Your task to perform on an android device: install app "Move to iOS" Image 0: 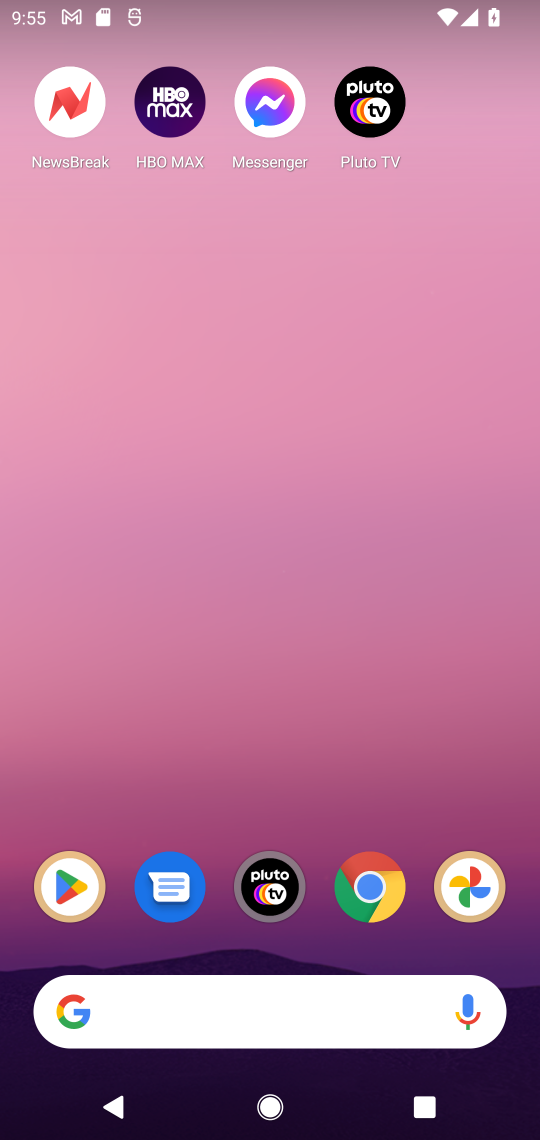
Step 0: click (76, 884)
Your task to perform on an android device: install app "Move to iOS" Image 1: 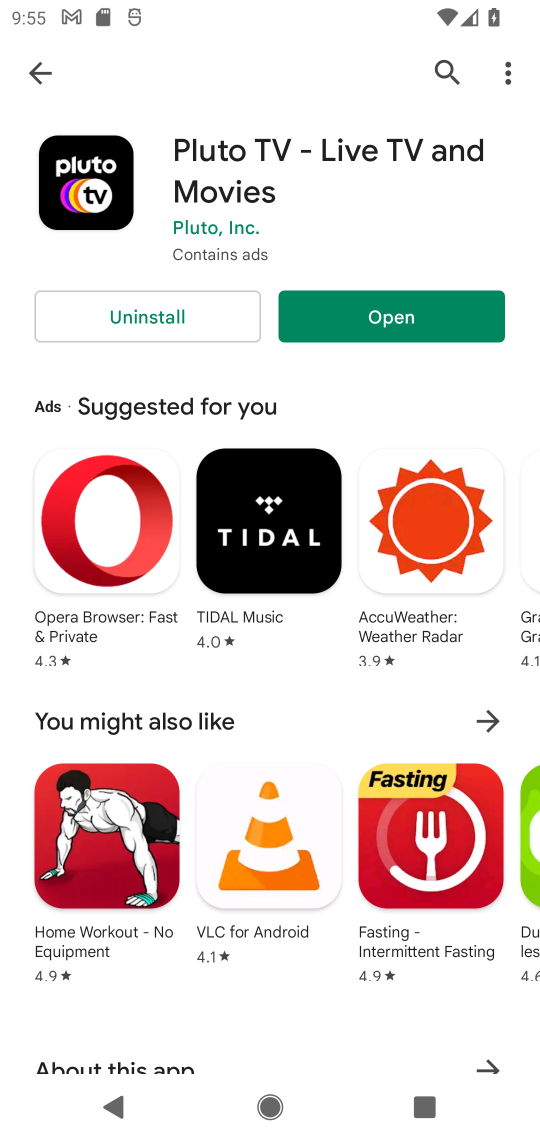
Step 1: click (439, 69)
Your task to perform on an android device: install app "Move to iOS" Image 2: 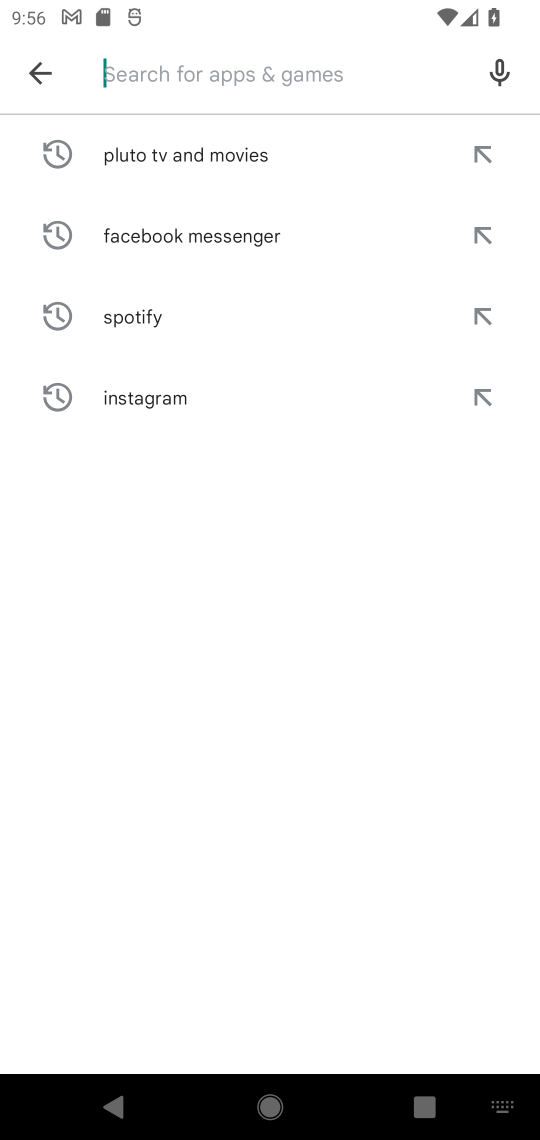
Step 2: type "Move to iOS"
Your task to perform on an android device: install app "Move to iOS" Image 3: 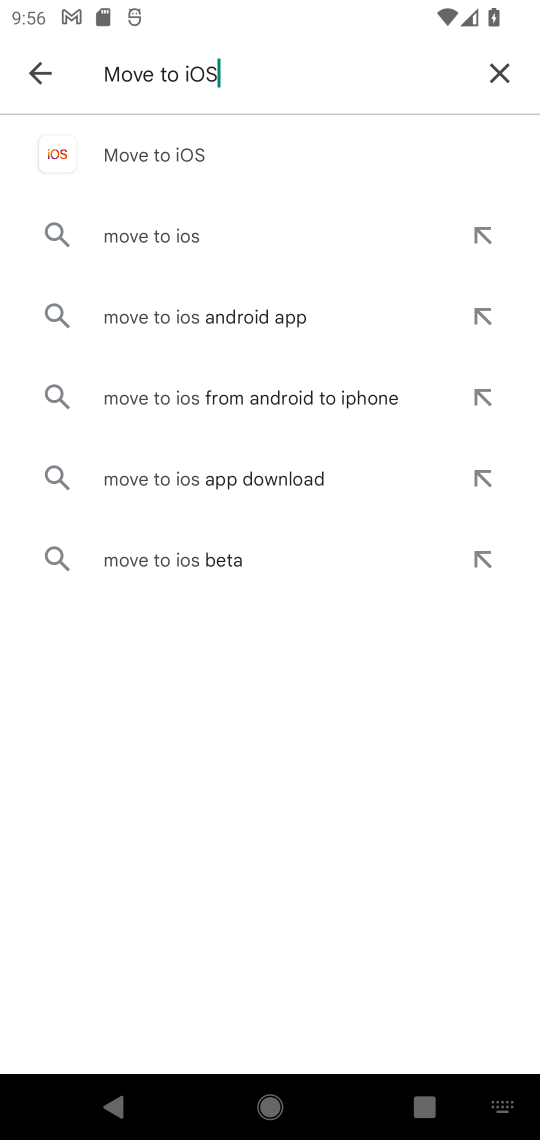
Step 3: click (129, 163)
Your task to perform on an android device: install app "Move to iOS" Image 4: 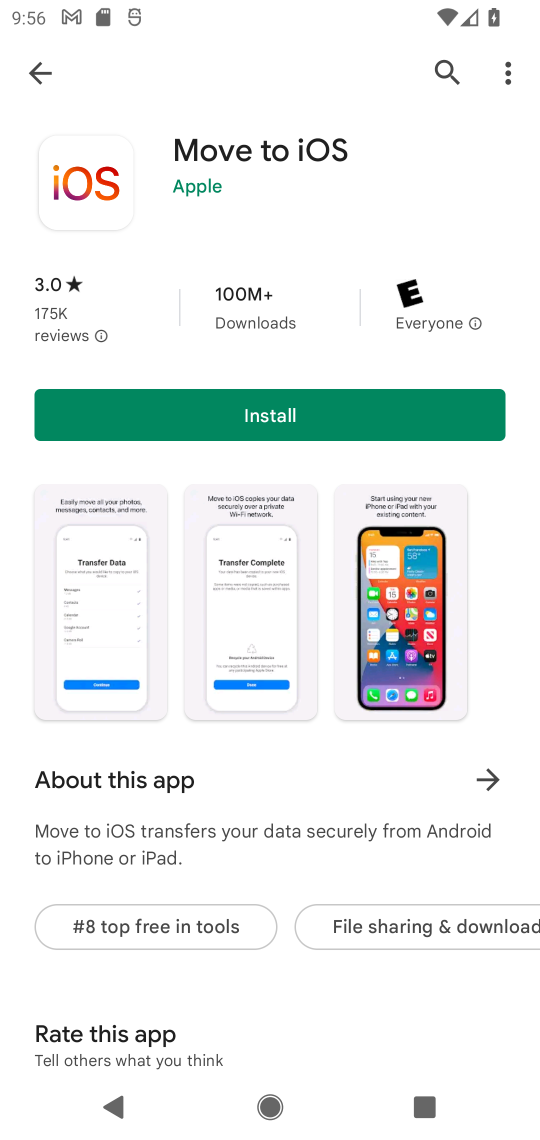
Step 4: click (233, 422)
Your task to perform on an android device: install app "Move to iOS" Image 5: 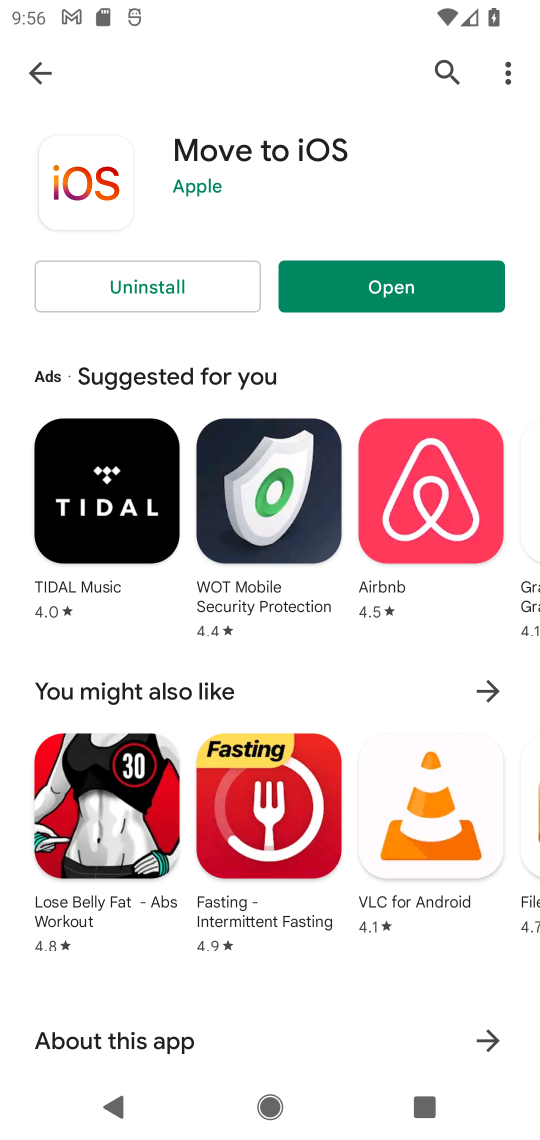
Step 5: task complete